Your task to perform on an android device: turn off improve location accuracy Image 0: 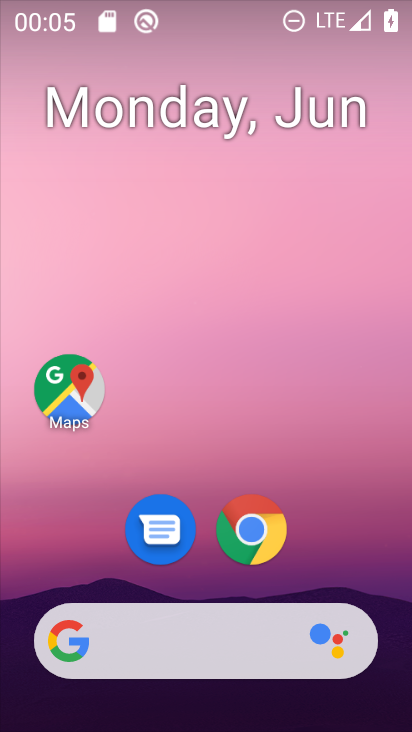
Step 0: drag from (398, 632) to (350, 154)
Your task to perform on an android device: turn off improve location accuracy Image 1: 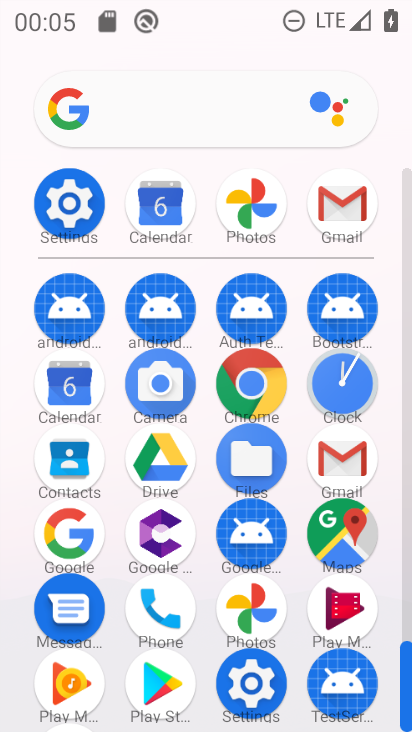
Step 1: click (249, 682)
Your task to perform on an android device: turn off improve location accuracy Image 2: 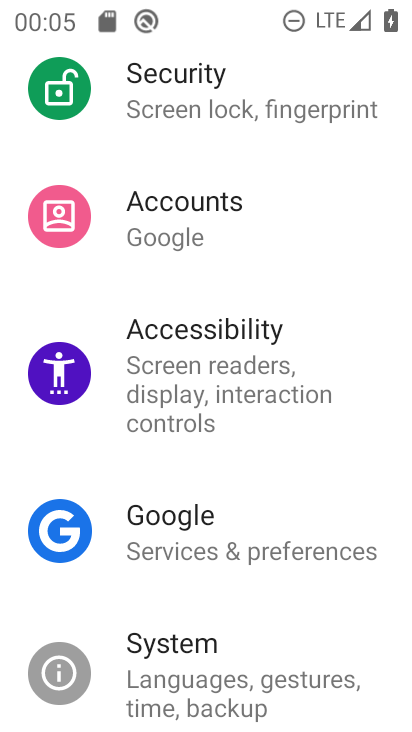
Step 2: drag from (354, 285) to (365, 572)
Your task to perform on an android device: turn off improve location accuracy Image 3: 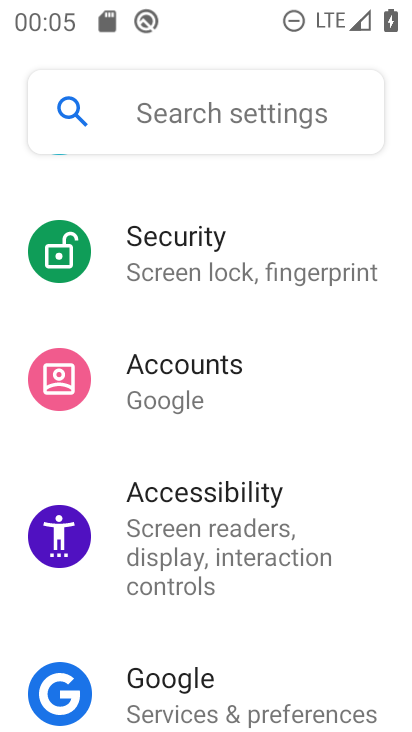
Step 3: drag from (354, 231) to (354, 574)
Your task to perform on an android device: turn off improve location accuracy Image 4: 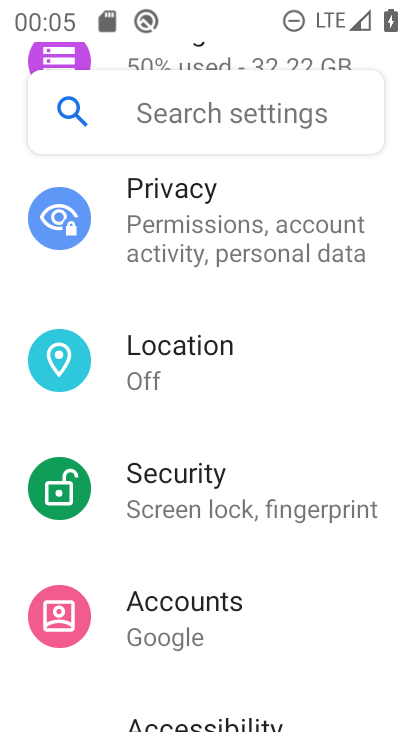
Step 4: click (152, 351)
Your task to perform on an android device: turn off improve location accuracy Image 5: 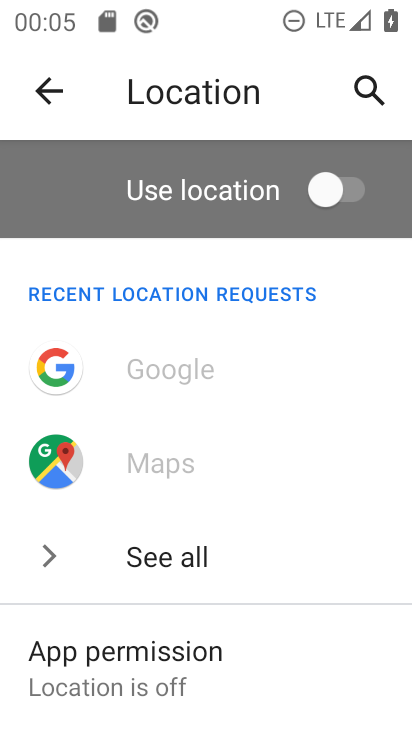
Step 5: drag from (293, 655) to (274, 123)
Your task to perform on an android device: turn off improve location accuracy Image 6: 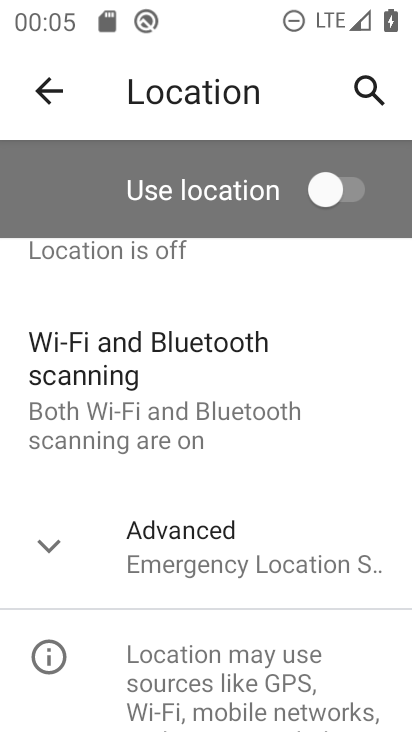
Step 6: click (48, 540)
Your task to perform on an android device: turn off improve location accuracy Image 7: 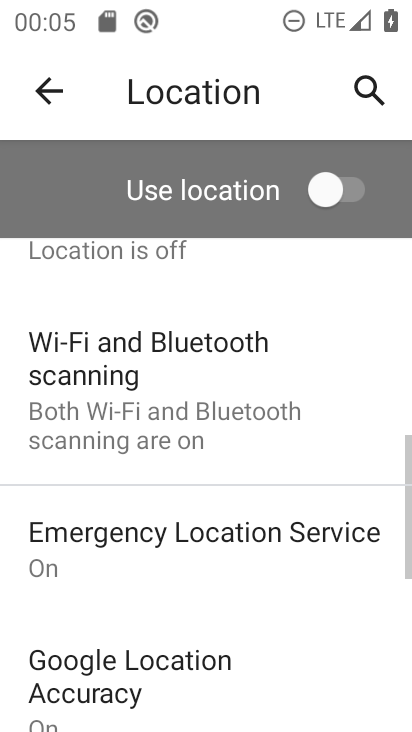
Step 7: drag from (308, 682) to (301, 313)
Your task to perform on an android device: turn off improve location accuracy Image 8: 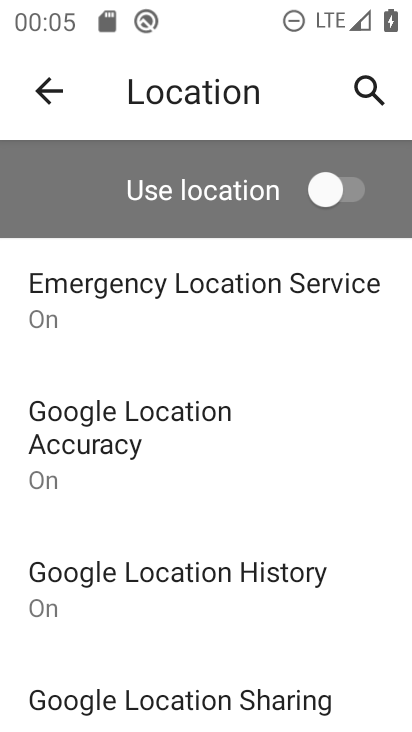
Step 8: click (67, 423)
Your task to perform on an android device: turn off improve location accuracy Image 9: 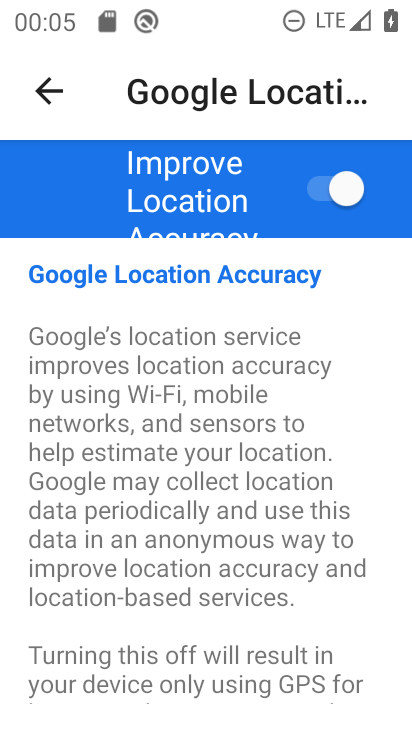
Step 9: click (319, 182)
Your task to perform on an android device: turn off improve location accuracy Image 10: 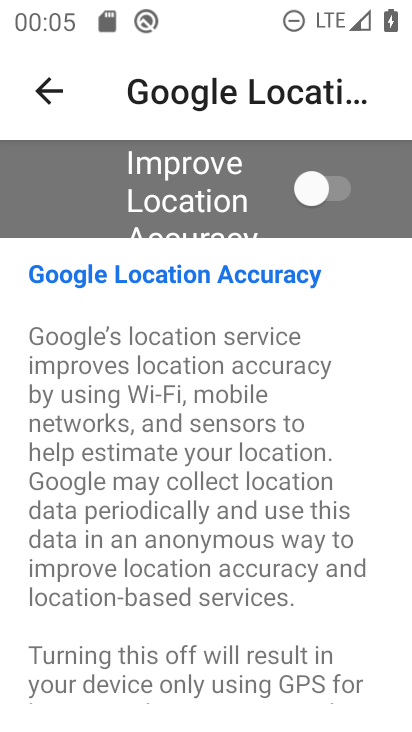
Step 10: task complete